Your task to perform on an android device: Go to network settings Image 0: 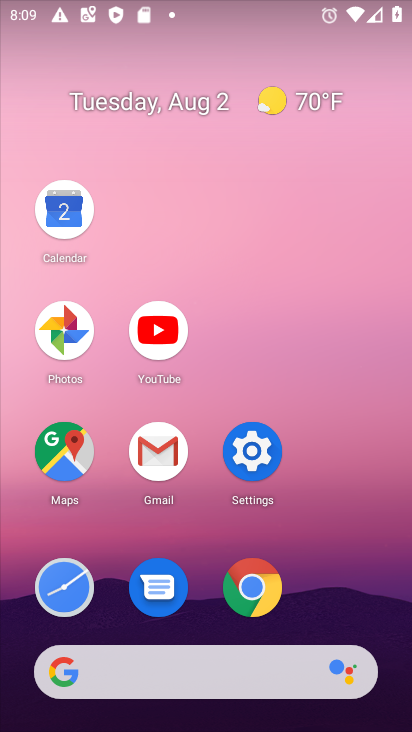
Step 0: click (252, 450)
Your task to perform on an android device: Go to network settings Image 1: 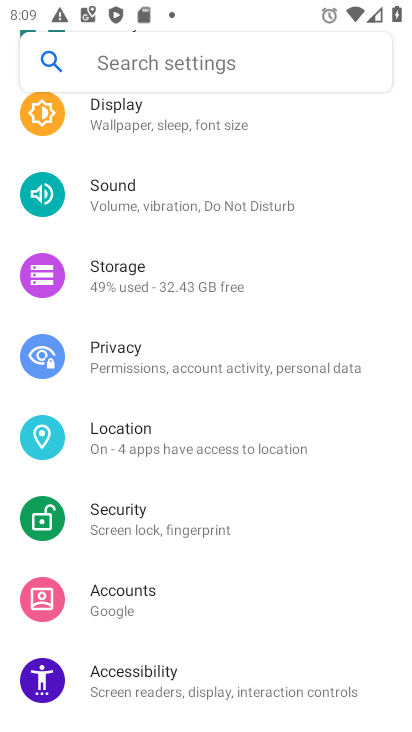
Step 1: drag from (262, 218) to (274, 680)
Your task to perform on an android device: Go to network settings Image 2: 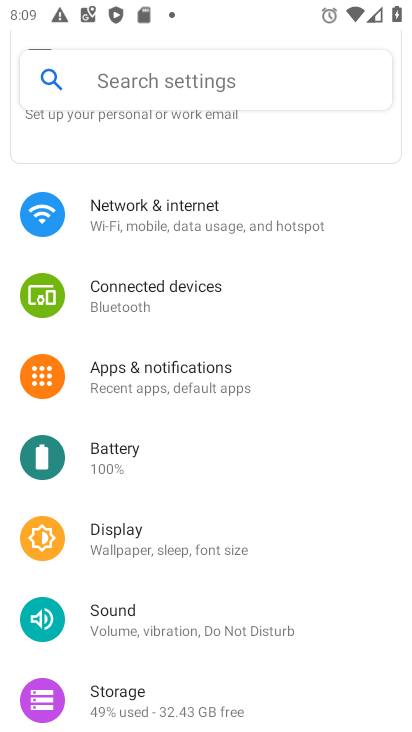
Step 2: click (141, 207)
Your task to perform on an android device: Go to network settings Image 3: 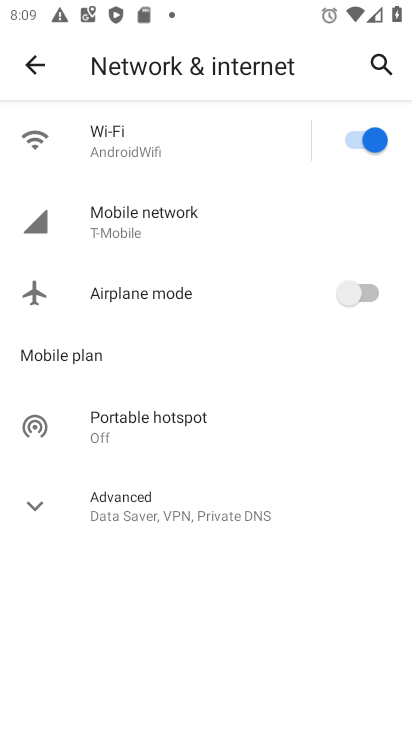
Step 3: click (148, 209)
Your task to perform on an android device: Go to network settings Image 4: 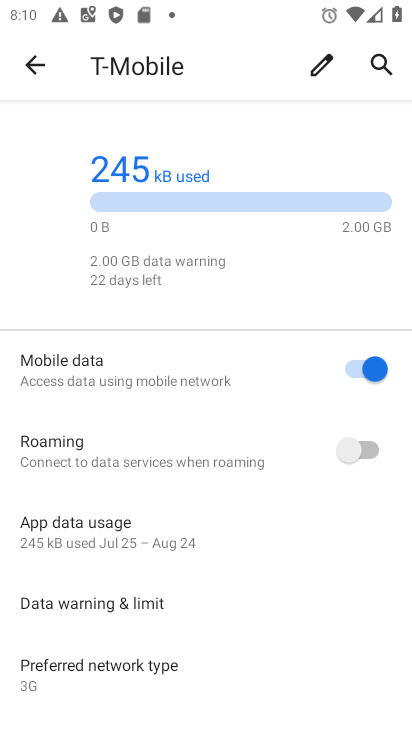
Step 4: task complete